Your task to perform on an android device: Search for usb-c to usb-a on amazon, select the first entry, add it to the cart, then select checkout. Image 0: 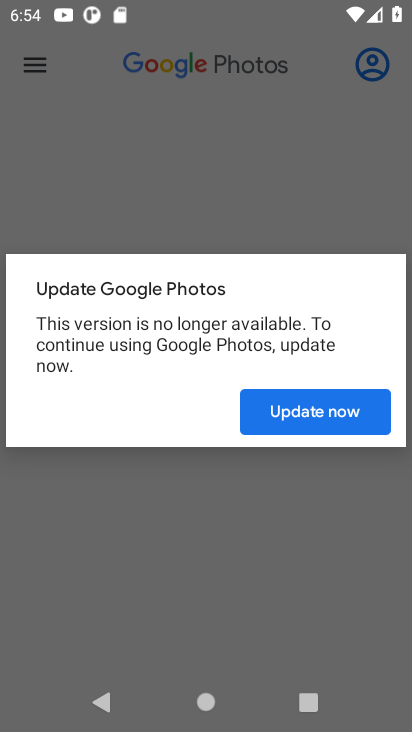
Step 0: press home button
Your task to perform on an android device: Search for usb-c to usb-a on amazon, select the first entry, add it to the cart, then select checkout. Image 1: 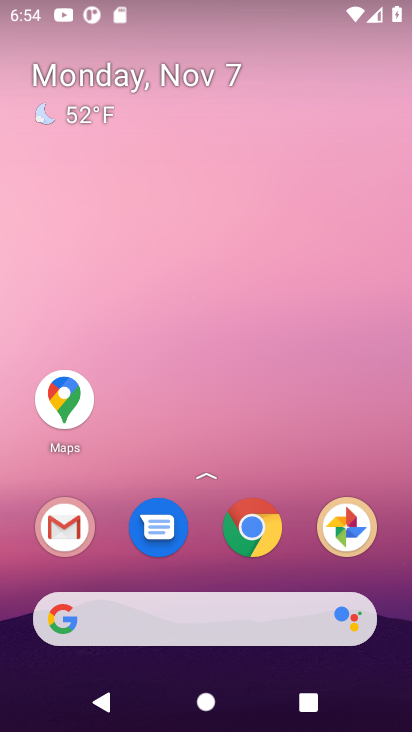
Step 1: click (259, 543)
Your task to perform on an android device: Search for usb-c to usb-a on amazon, select the first entry, add it to the cart, then select checkout. Image 2: 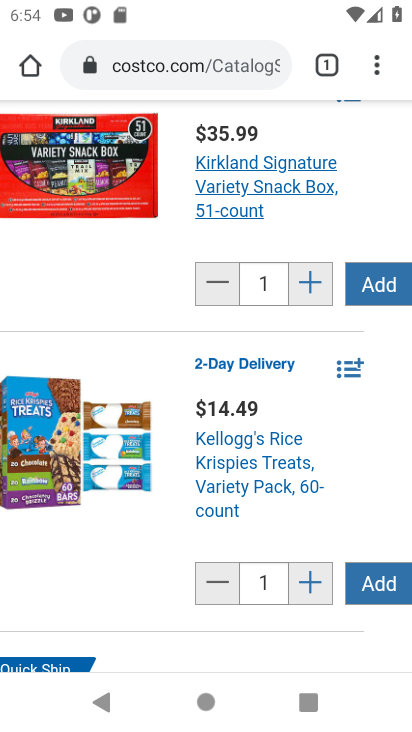
Step 2: click (195, 62)
Your task to perform on an android device: Search for usb-c to usb-a on amazon, select the first entry, add it to the cart, then select checkout. Image 3: 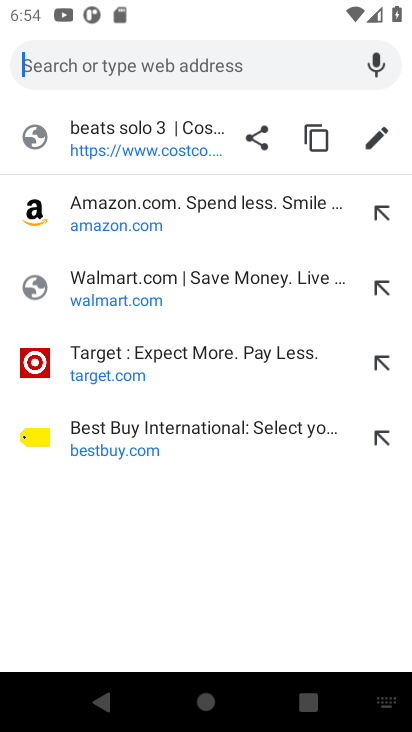
Step 3: type "amazon"
Your task to perform on an android device: Search for usb-c to usb-a on amazon, select the first entry, add it to the cart, then select checkout. Image 4: 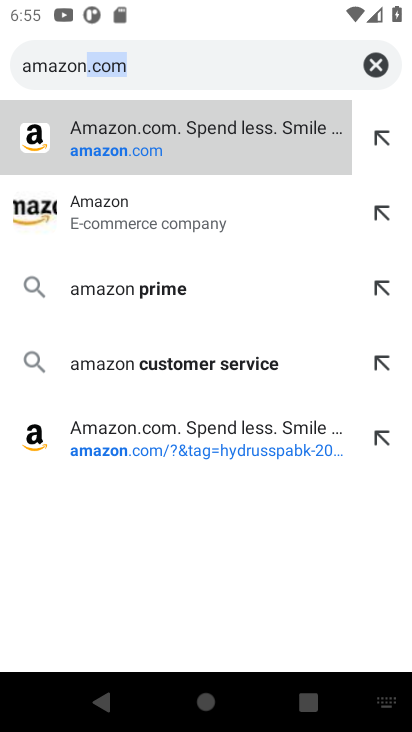
Step 4: click (230, 139)
Your task to perform on an android device: Search for usb-c to usb-a on amazon, select the first entry, add it to the cart, then select checkout. Image 5: 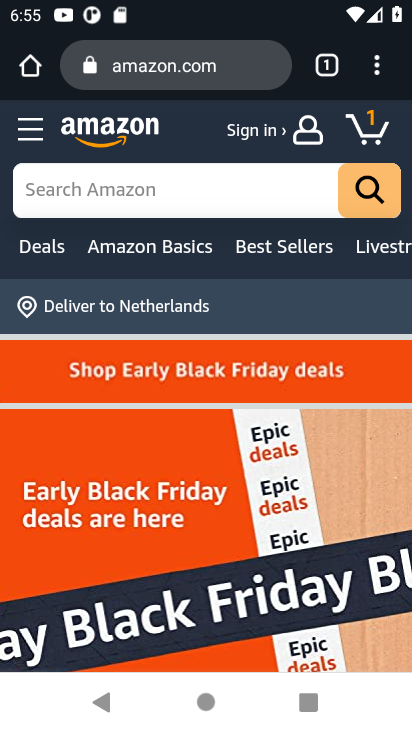
Step 5: click (164, 185)
Your task to perform on an android device: Search for usb-c to usb-a on amazon, select the first entry, add it to the cart, then select checkout. Image 6: 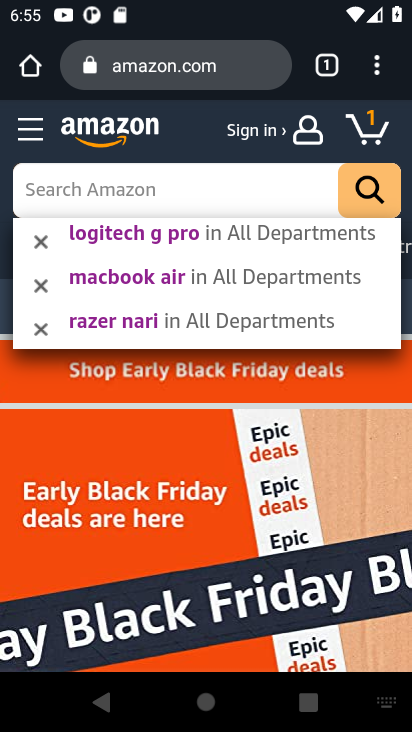
Step 6: type "usb-c to usb-a"
Your task to perform on an android device: Search for usb-c to usb-a on amazon, select the first entry, add it to the cart, then select checkout. Image 7: 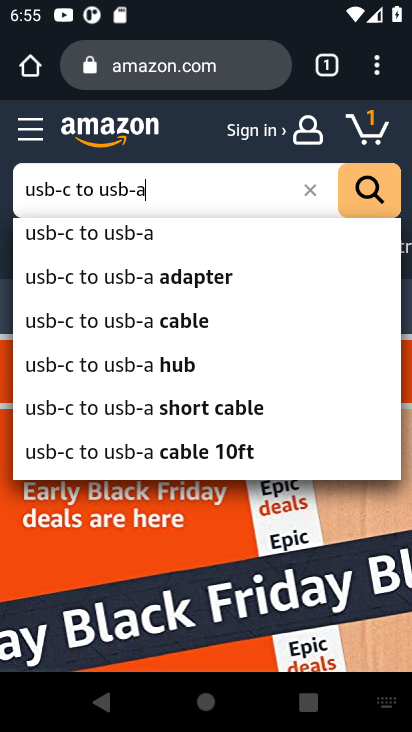
Step 7: click (95, 239)
Your task to perform on an android device: Search for usb-c to usb-a on amazon, select the first entry, add it to the cart, then select checkout. Image 8: 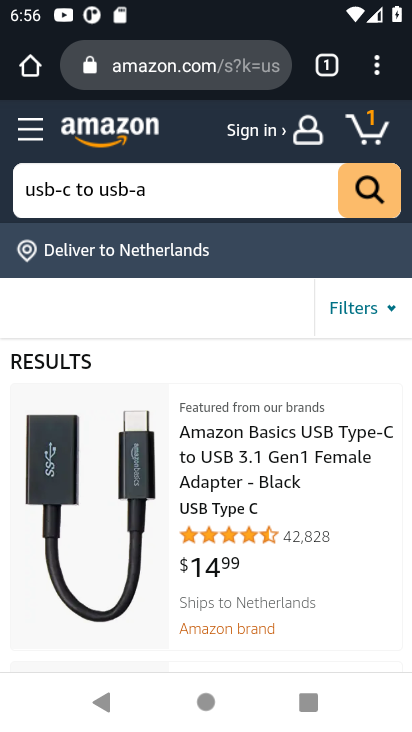
Step 8: click (216, 488)
Your task to perform on an android device: Search for usb-c to usb-a on amazon, select the first entry, add it to the cart, then select checkout. Image 9: 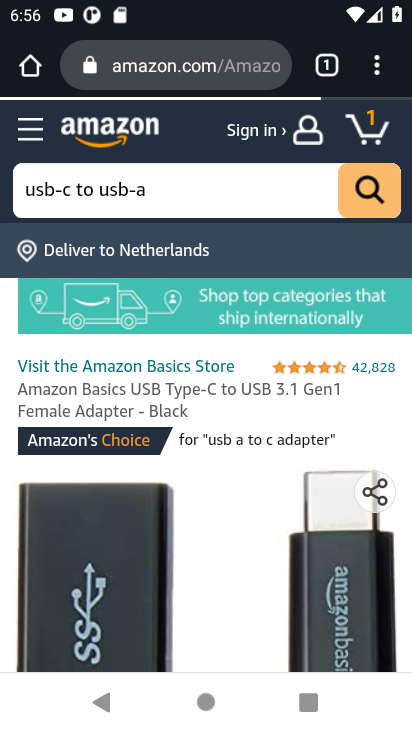
Step 9: drag from (226, 541) to (157, 212)
Your task to perform on an android device: Search for usb-c to usb-a on amazon, select the first entry, add it to the cart, then select checkout. Image 10: 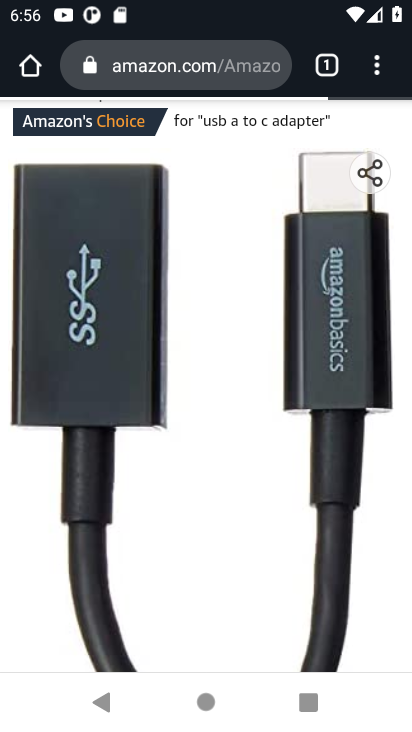
Step 10: drag from (201, 568) to (135, 216)
Your task to perform on an android device: Search for usb-c to usb-a on amazon, select the first entry, add it to the cart, then select checkout. Image 11: 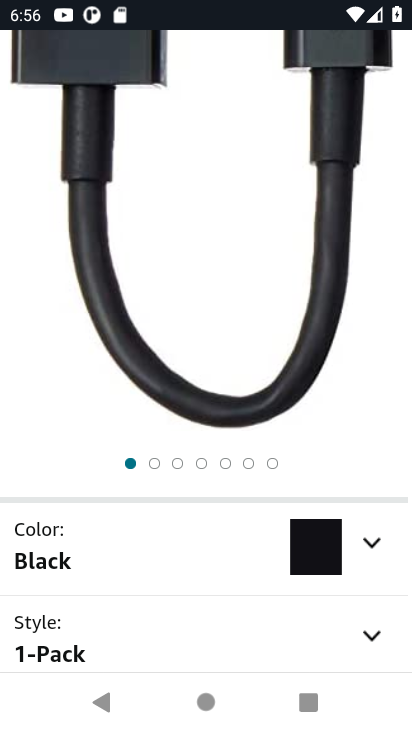
Step 11: drag from (177, 607) to (118, 242)
Your task to perform on an android device: Search for usb-c to usb-a on amazon, select the first entry, add it to the cart, then select checkout. Image 12: 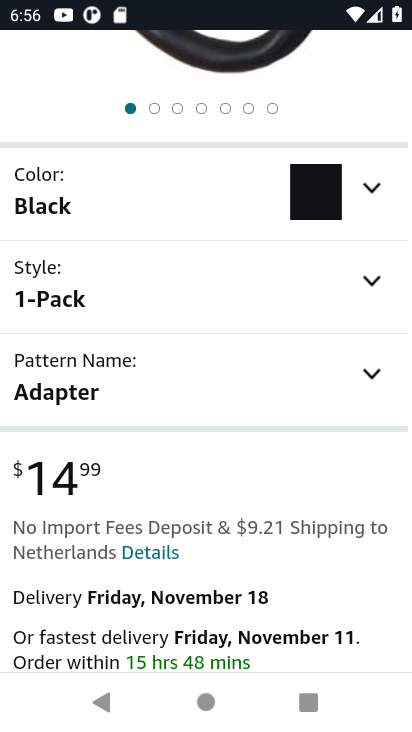
Step 12: drag from (133, 638) to (129, 93)
Your task to perform on an android device: Search for usb-c to usb-a on amazon, select the first entry, add it to the cart, then select checkout. Image 13: 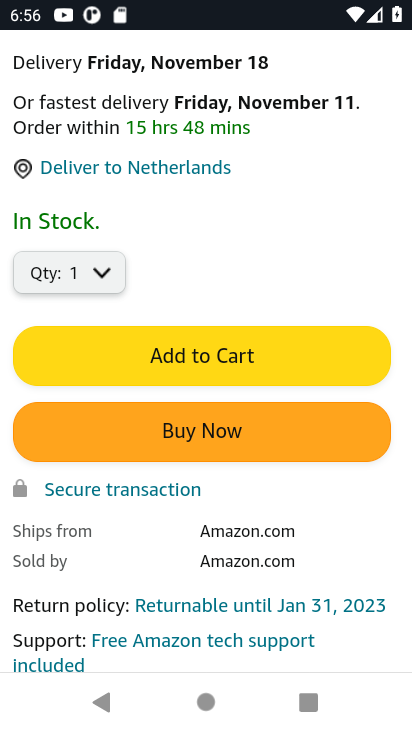
Step 13: click (218, 374)
Your task to perform on an android device: Search for usb-c to usb-a on amazon, select the first entry, add it to the cart, then select checkout. Image 14: 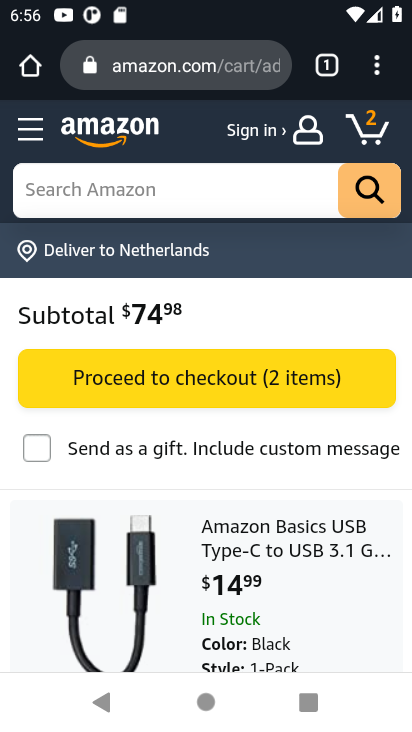
Step 14: click (218, 378)
Your task to perform on an android device: Search for usb-c to usb-a on amazon, select the first entry, add it to the cart, then select checkout. Image 15: 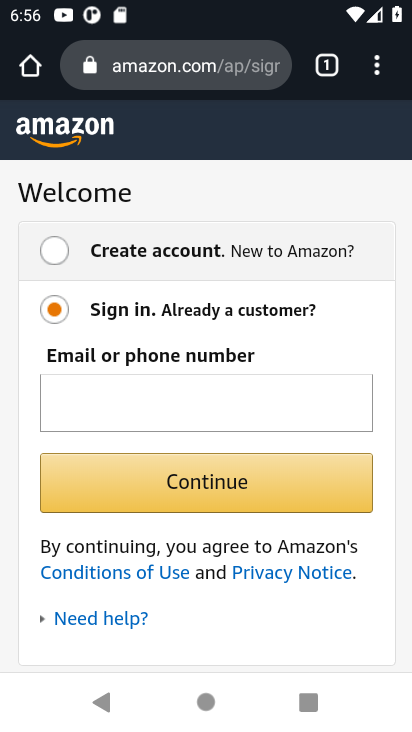
Step 15: task complete